Your task to perform on an android device: Search for pizza restaurants on Maps Image 0: 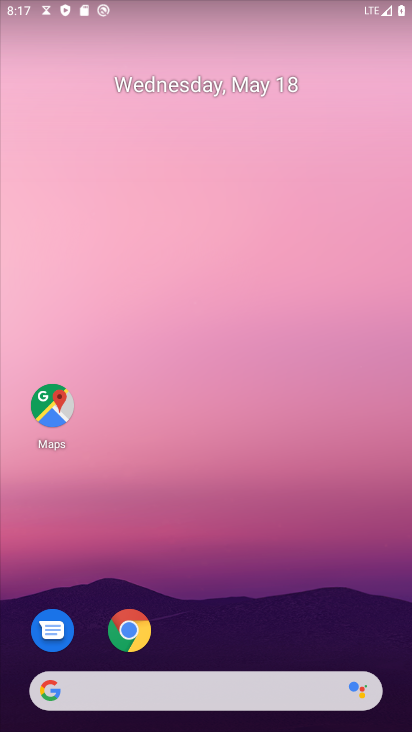
Step 0: drag from (271, 548) to (348, 68)
Your task to perform on an android device: Search for pizza restaurants on Maps Image 1: 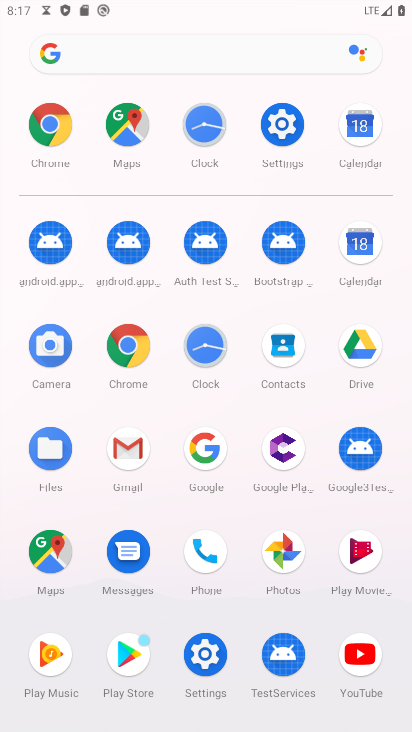
Step 1: click (144, 130)
Your task to perform on an android device: Search for pizza restaurants on Maps Image 2: 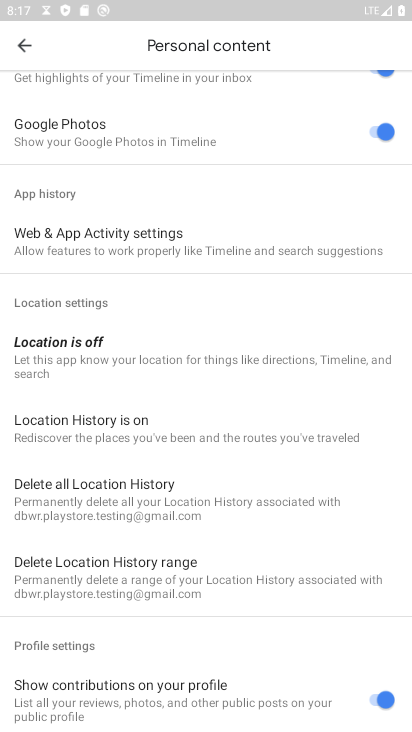
Step 2: task complete